Your task to perform on an android device: choose inbox layout in the gmail app Image 0: 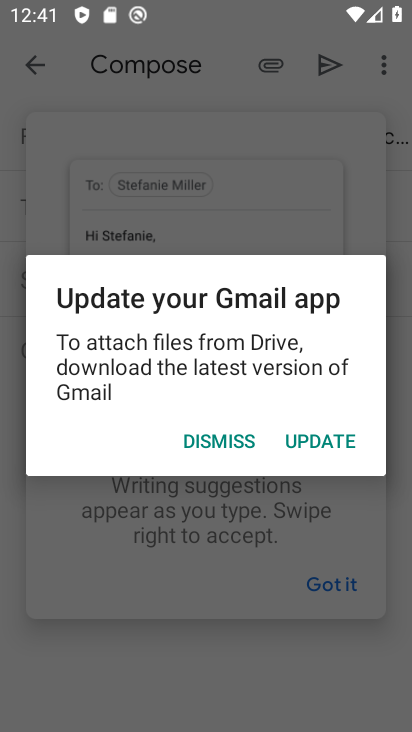
Step 0: press home button
Your task to perform on an android device: choose inbox layout in the gmail app Image 1: 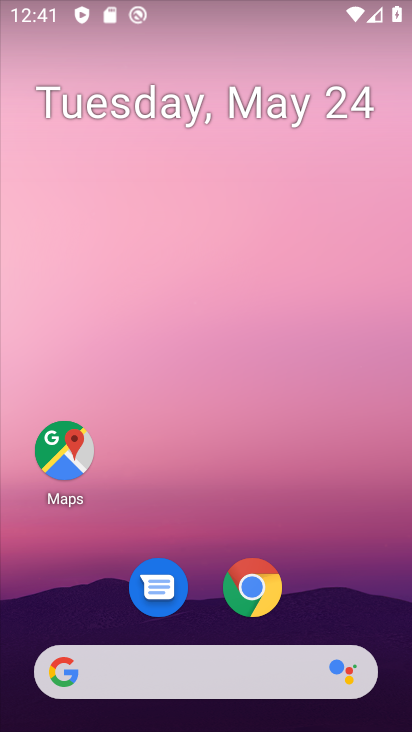
Step 1: drag from (235, 670) to (222, 200)
Your task to perform on an android device: choose inbox layout in the gmail app Image 2: 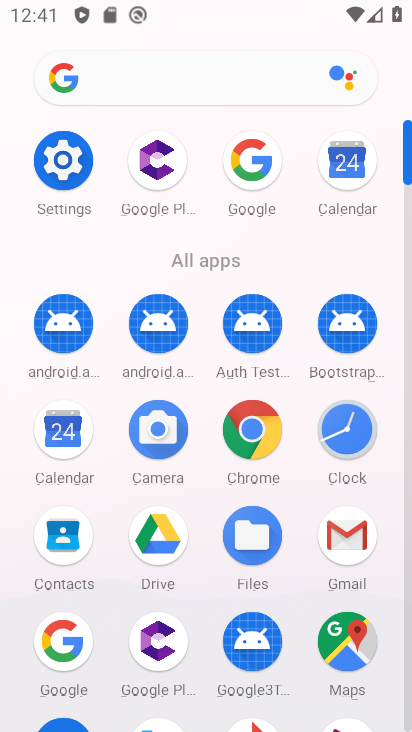
Step 2: click (352, 551)
Your task to perform on an android device: choose inbox layout in the gmail app Image 3: 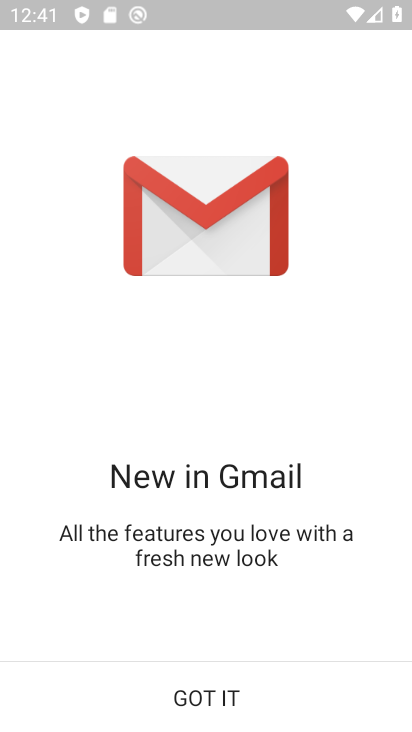
Step 3: click (214, 678)
Your task to perform on an android device: choose inbox layout in the gmail app Image 4: 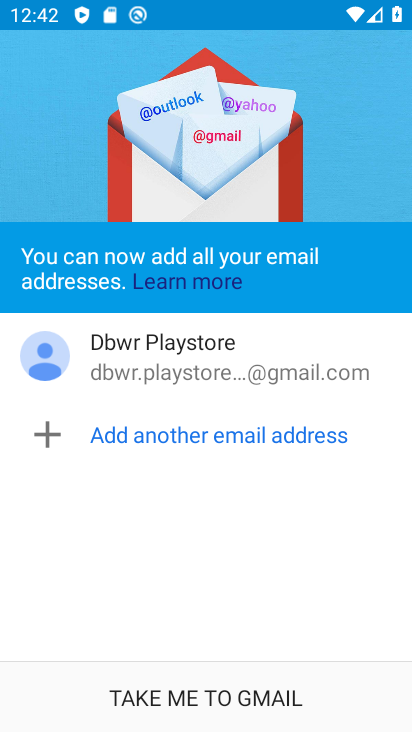
Step 4: click (217, 678)
Your task to perform on an android device: choose inbox layout in the gmail app Image 5: 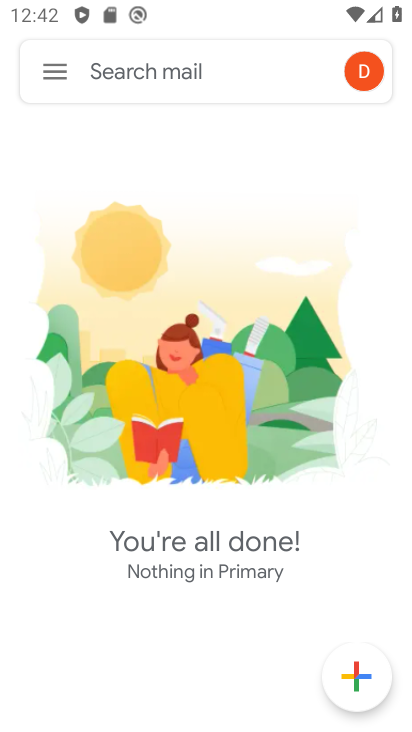
Step 5: click (73, 90)
Your task to perform on an android device: choose inbox layout in the gmail app Image 6: 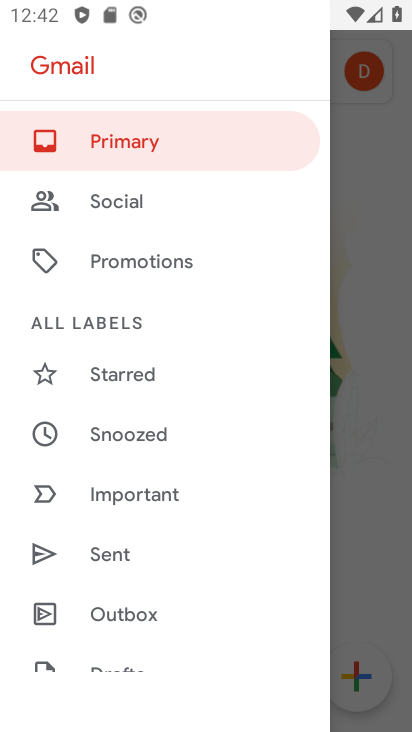
Step 6: drag from (185, 591) to (166, 6)
Your task to perform on an android device: choose inbox layout in the gmail app Image 7: 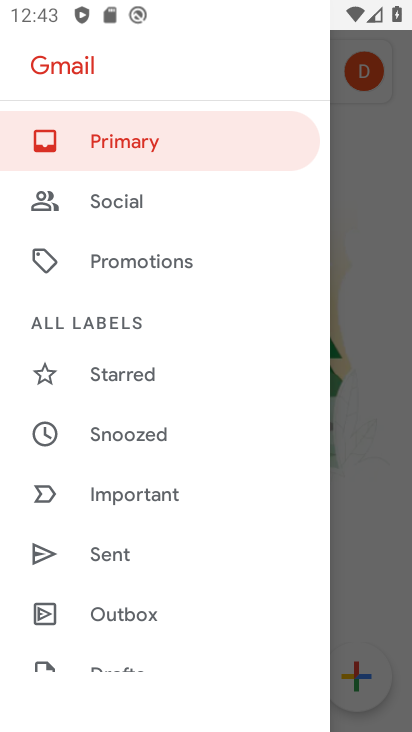
Step 7: drag from (150, 578) to (137, 92)
Your task to perform on an android device: choose inbox layout in the gmail app Image 8: 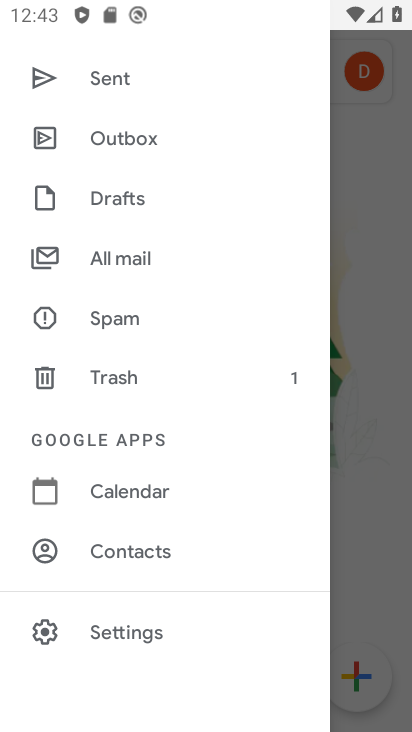
Step 8: click (108, 637)
Your task to perform on an android device: choose inbox layout in the gmail app Image 9: 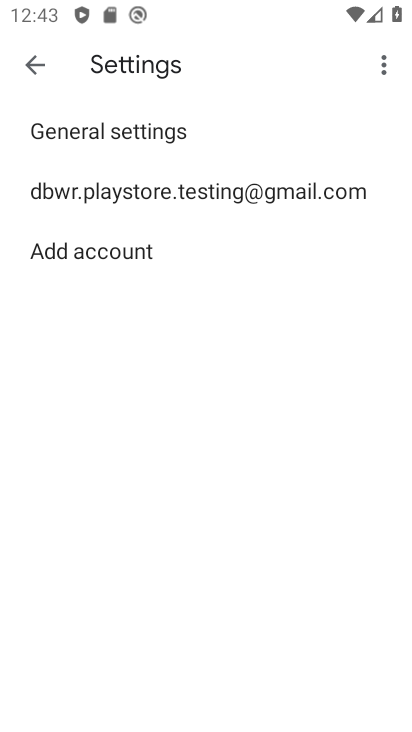
Step 9: click (206, 189)
Your task to perform on an android device: choose inbox layout in the gmail app Image 10: 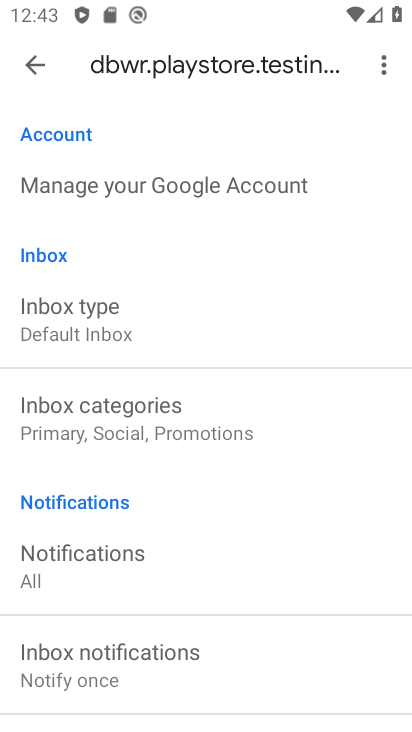
Step 10: click (95, 311)
Your task to perform on an android device: choose inbox layout in the gmail app Image 11: 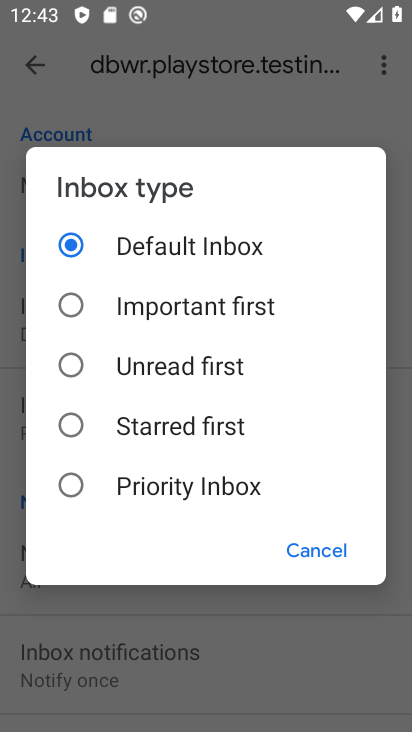
Step 11: click (164, 306)
Your task to perform on an android device: choose inbox layout in the gmail app Image 12: 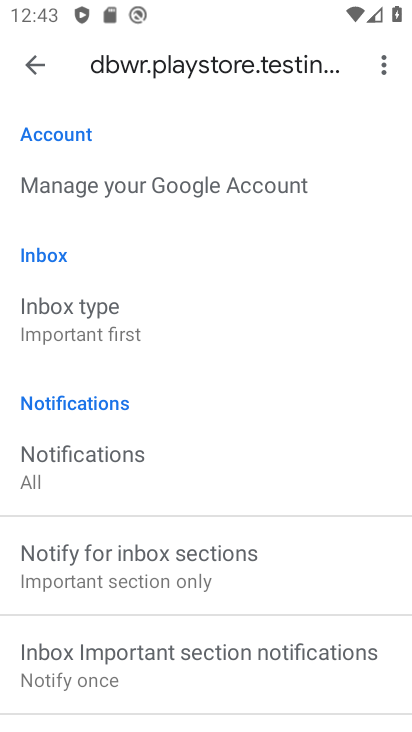
Step 12: task complete